Your task to perform on an android device: Search for vegetarian restaurants on Maps Image 0: 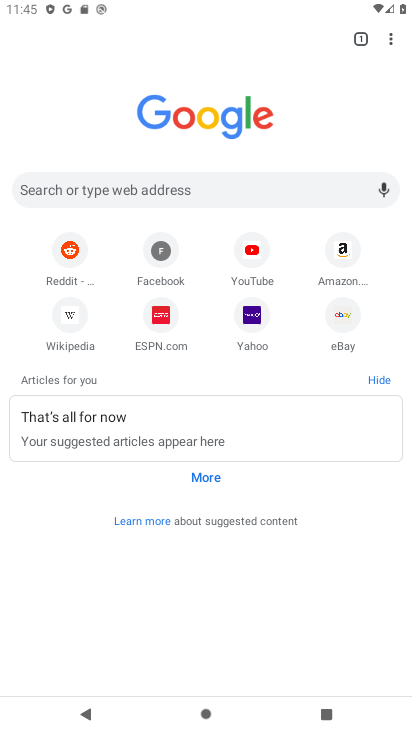
Step 0: press home button
Your task to perform on an android device: Search for vegetarian restaurants on Maps Image 1: 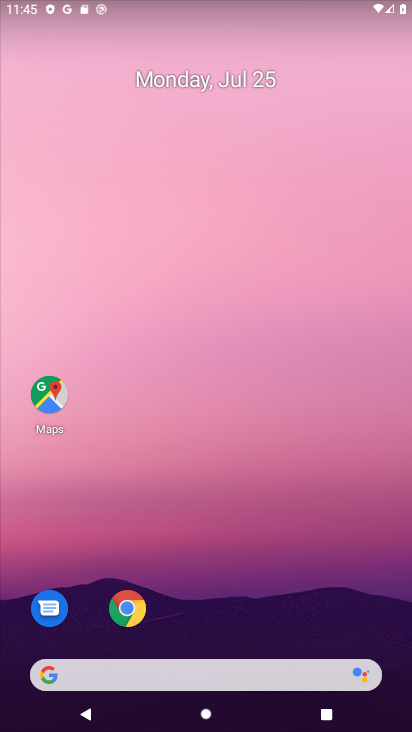
Step 1: click (52, 403)
Your task to perform on an android device: Search for vegetarian restaurants on Maps Image 2: 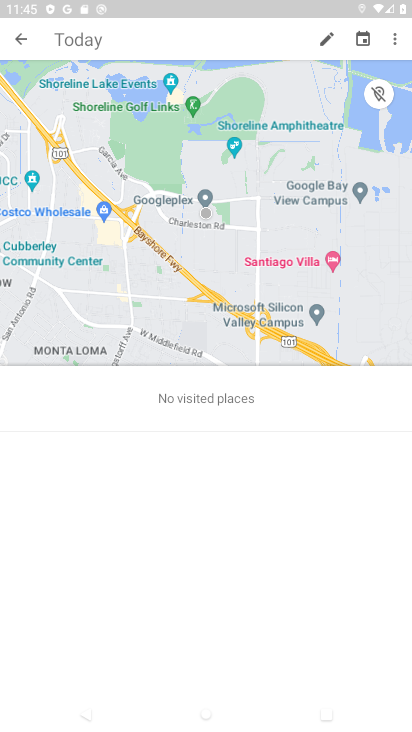
Step 2: click (31, 47)
Your task to perform on an android device: Search for vegetarian restaurants on Maps Image 3: 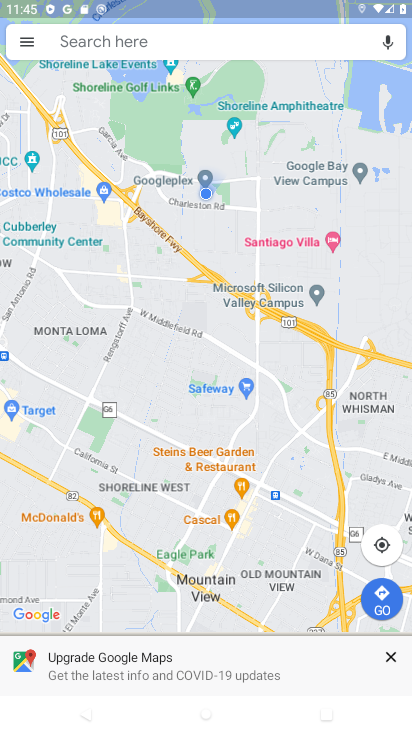
Step 3: click (223, 40)
Your task to perform on an android device: Search for vegetarian restaurants on Maps Image 4: 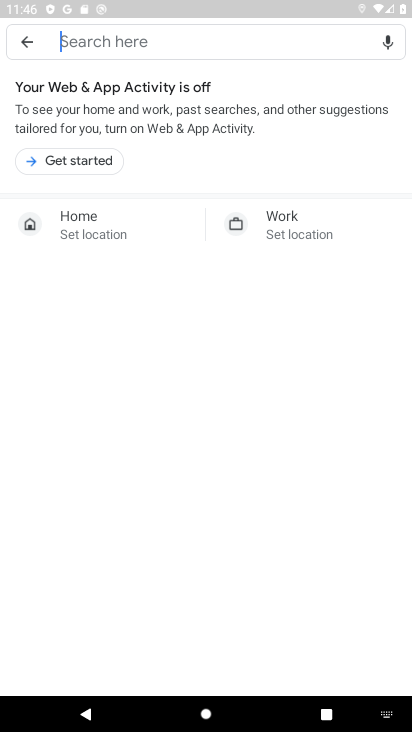
Step 4: type "vegetarian restaurant"
Your task to perform on an android device: Search for vegetarian restaurants on Maps Image 5: 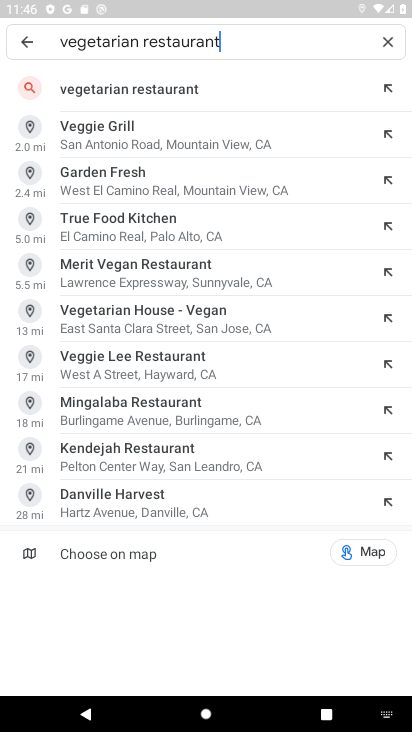
Step 5: click (139, 79)
Your task to perform on an android device: Search for vegetarian restaurants on Maps Image 6: 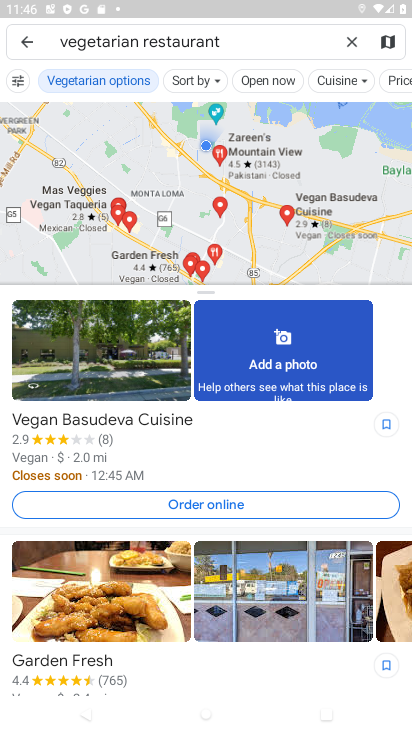
Step 6: task complete